Your task to perform on an android device: Open network settings Image 0: 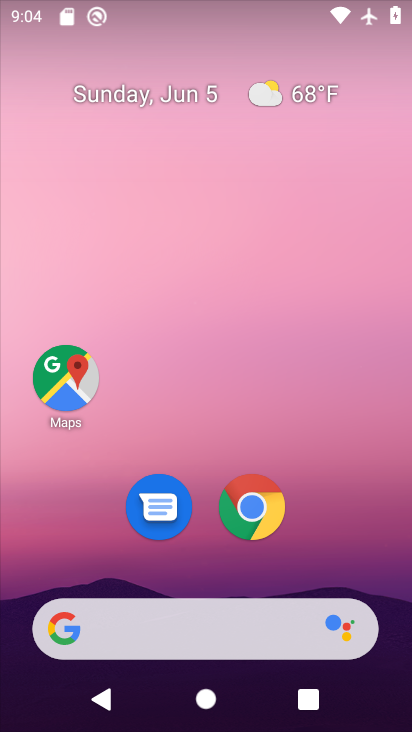
Step 0: drag from (210, 557) to (229, 9)
Your task to perform on an android device: Open network settings Image 1: 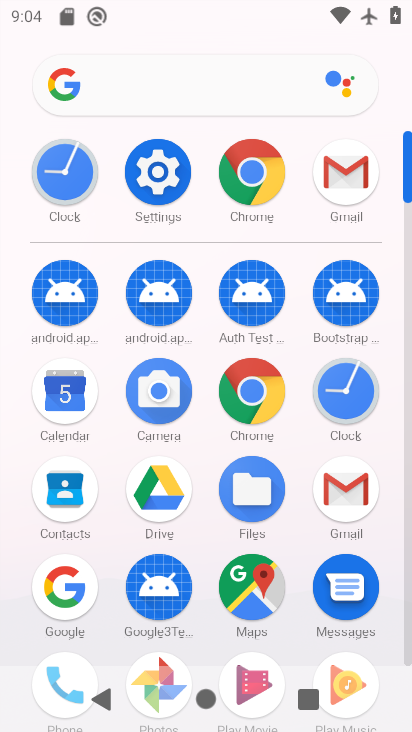
Step 1: click (164, 175)
Your task to perform on an android device: Open network settings Image 2: 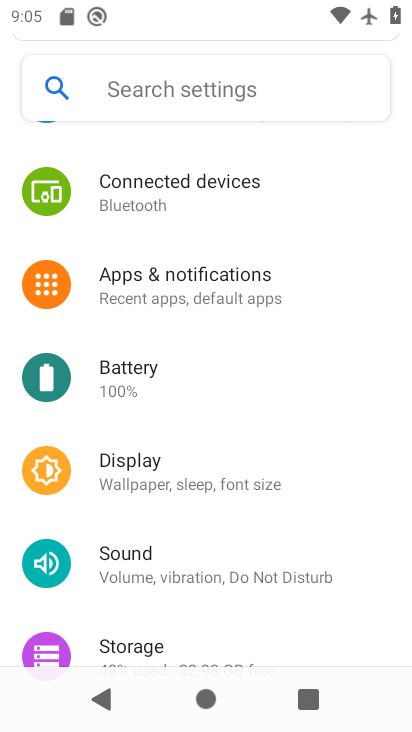
Step 2: drag from (218, 262) to (217, 586)
Your task to perform on an android device: Open network settings Image 3: 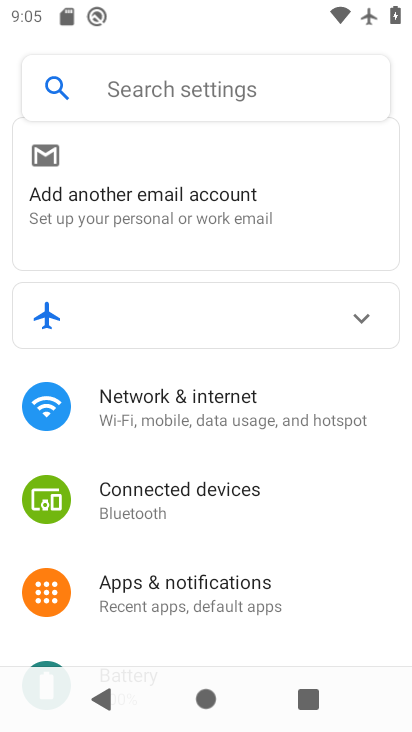
Step 3: click (195, 400)
Your task to perform on an android device: Open network settings Image 4: 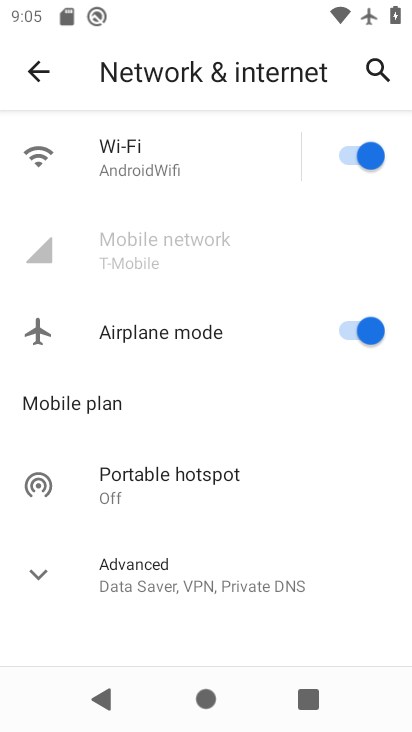
Step 4: task complete